Your task to perform on an android device: Open Youtube and go to the subscriptions tab Image 0: 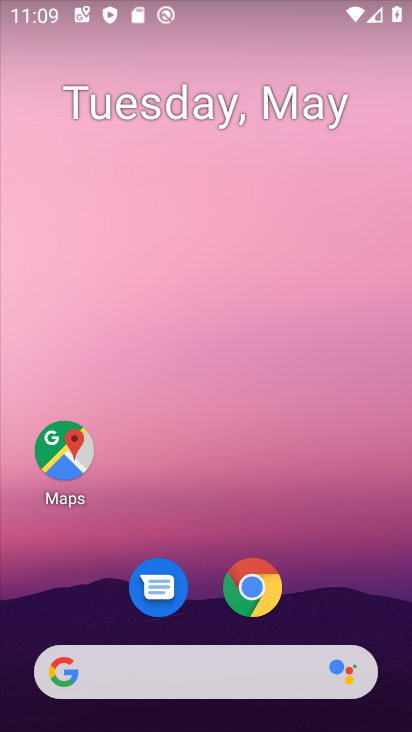
Step 0: drag from (385, 555) to (272, 0)
Your task to perform on an android device: Open Youtube and go to the subscriptions tab Image 1: 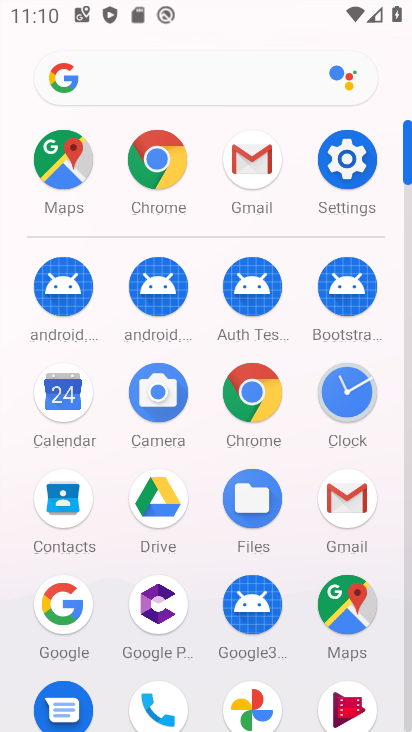
Step 1: drag from (1, 607) to (9, 296)
Your task to perform on an android device: Open Youtube and go to the subscriptions tab Image 2: 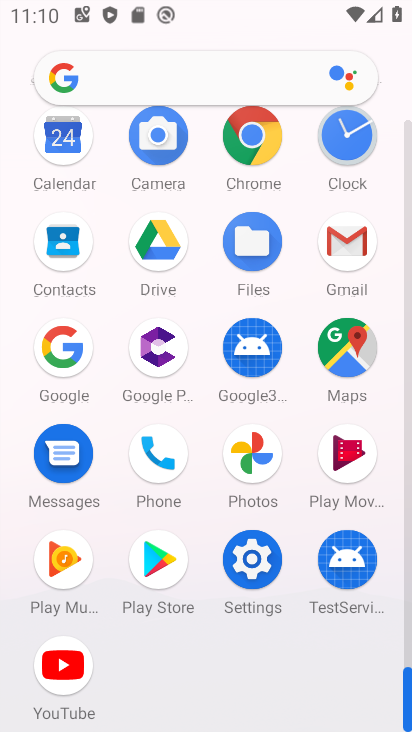
Step 2: click (57, 664)
Your task to perform on an android device: Open Youtube and go to the subscriptions tab Image 3: 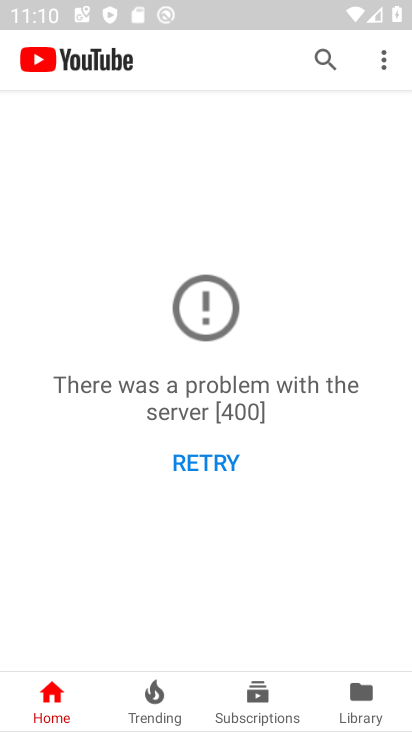
Step 3: click (241, 692)
Your task to perform on an android device: Open Youtube and go to the subscriptions tab Image 4: 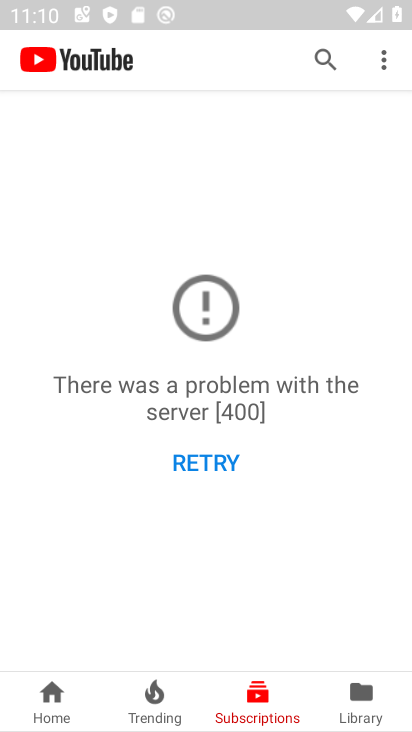
Step 4: task complete